Your task to perform on an android device: find which apps use the phone's location Image 0: 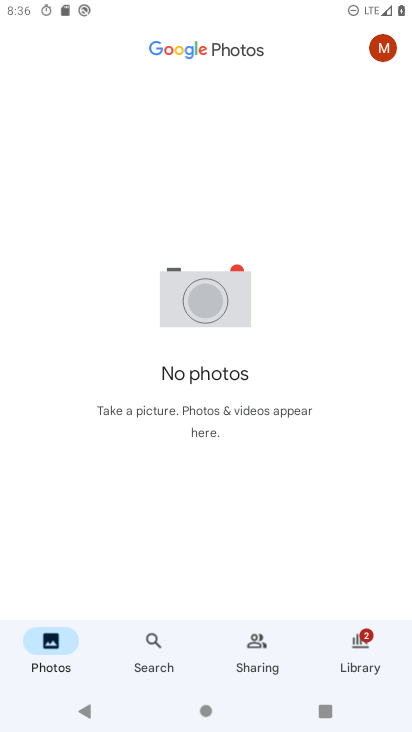
Step 0: press home button
Your task to perform on an android device: find which apps use the phone's location Image 1: 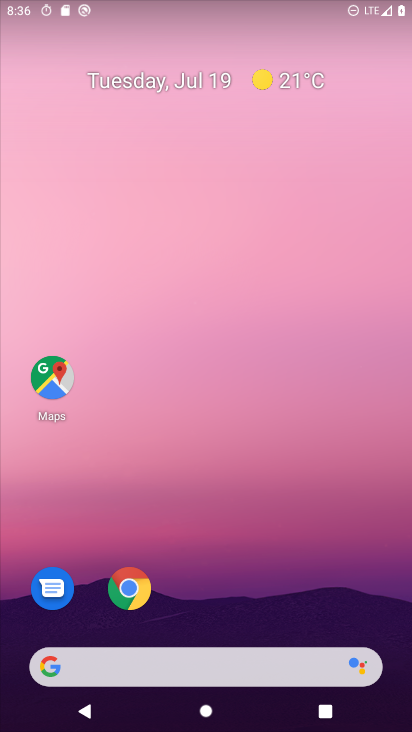
Step 1: drag from (297, 490) to (311, 194)
Your task to perform on an android device: find which apps use the phone's location Image 2: 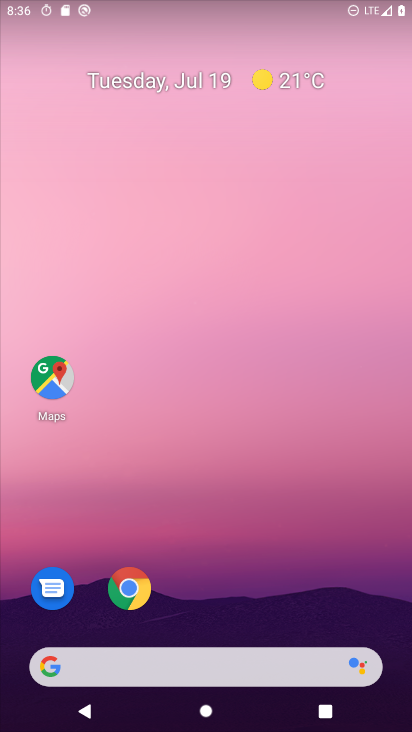
Step 2: drag from (205, 593) to (243, 8)
Your task to perform on an android device: find which apps use the phone's location Image 3: 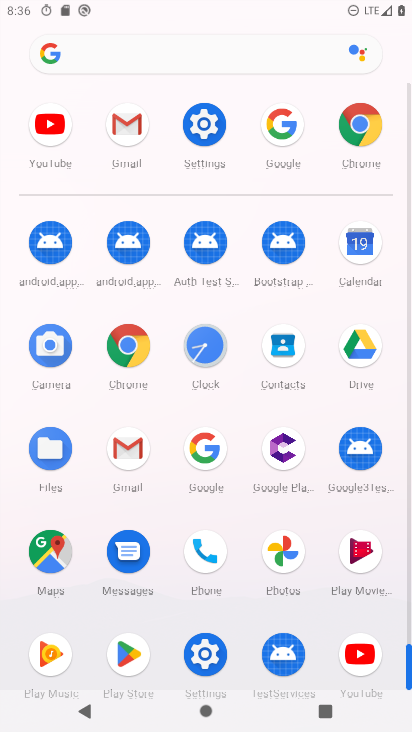
Step 3: click (203, 162)
Your task to perform on an android device: find which apps use the phone's location Image 4: 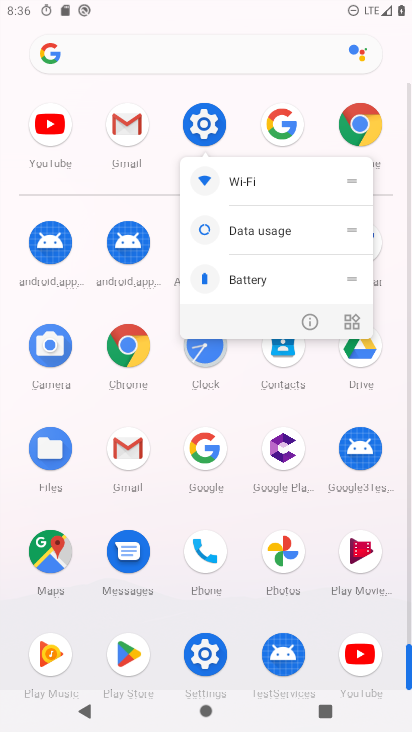
Step 4: click (180, 133)
Your task to perform on an android device: find which apps use the phone's location Image 5: 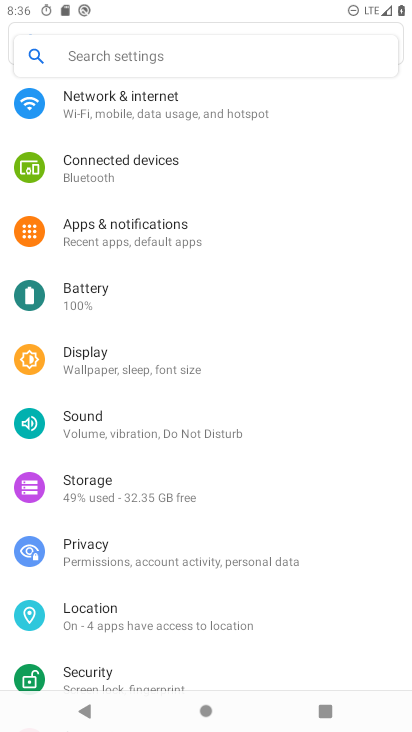
Step 5: click (138, 619)
Your task to perform on an android device: find which apps use the phone's location Image 6: 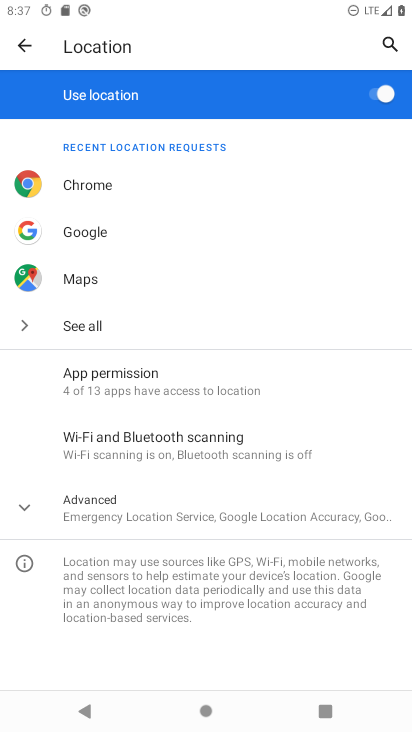
Step 6: click (152, 391)
Your task to perform on an android device: find which apps use the phone's location Image 7: 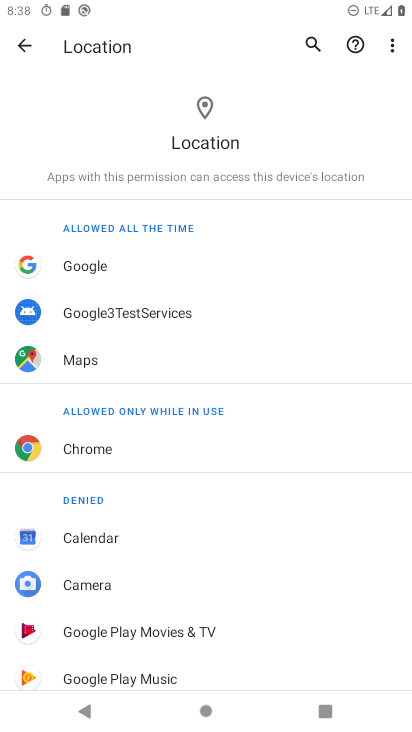
Step 7: task complete